Your task to perform on an android device: clear all cookies in the chrome app Image 0: 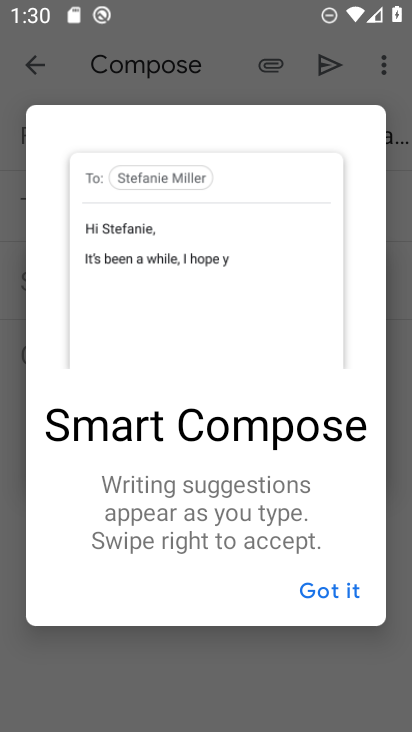
Step 0: press home button
Your task to perform on an android device: clear all cookies in the chrome app Image 1: 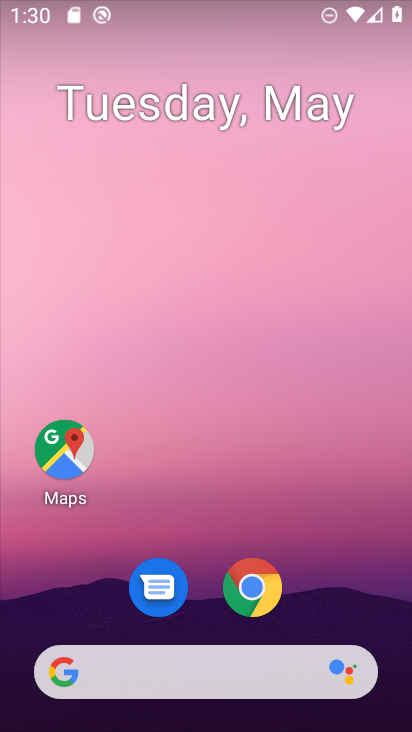
Step 1: click (247, 576)
Your task to perform on an android device: clear all cookies in the chrome app Image 2: 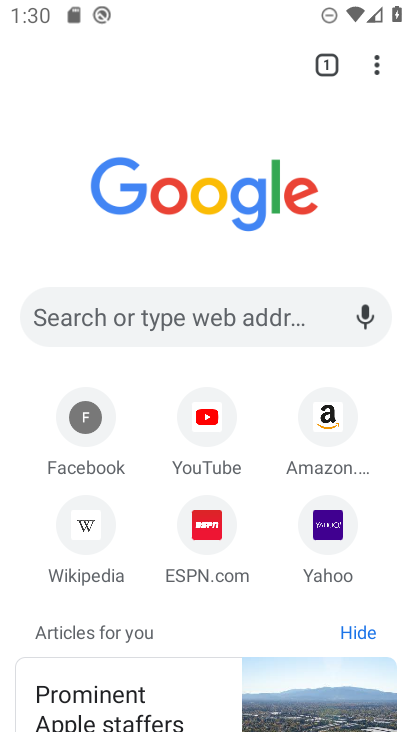
Step 2: click (389, 61)
Your task to perform on an android device: clear all cookies in the chrome app Image 3: 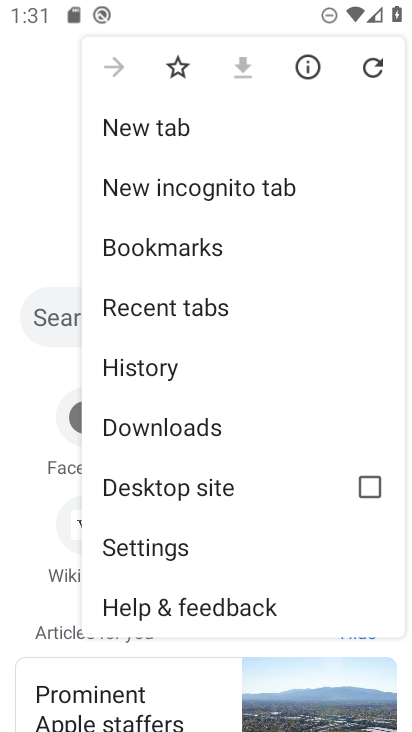
Step 3: click (180, 372)
Your task to perform on an android device: clear all cookies in the chrome app Image 4: 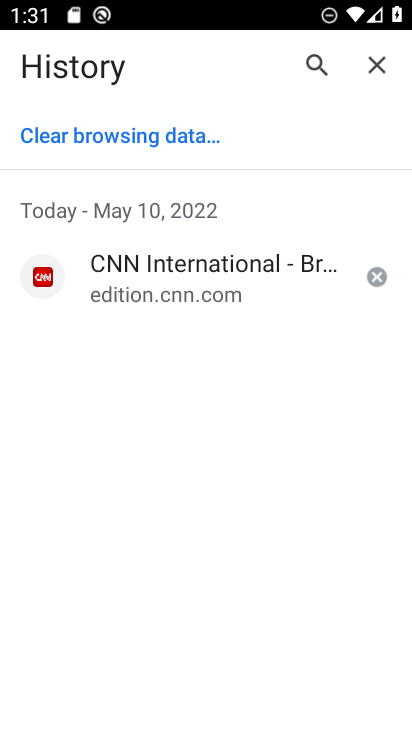
Step 4: click (148, 132)
Your task to perform on an android device: clear all cookies in the chrome app Image 5: 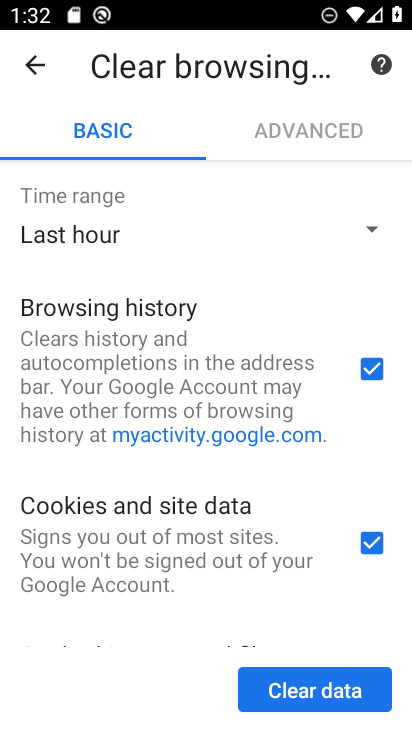
Step 5: click (369, 371)
Your task to perform on an android device: clear all cookies in the chrome app Image 6: 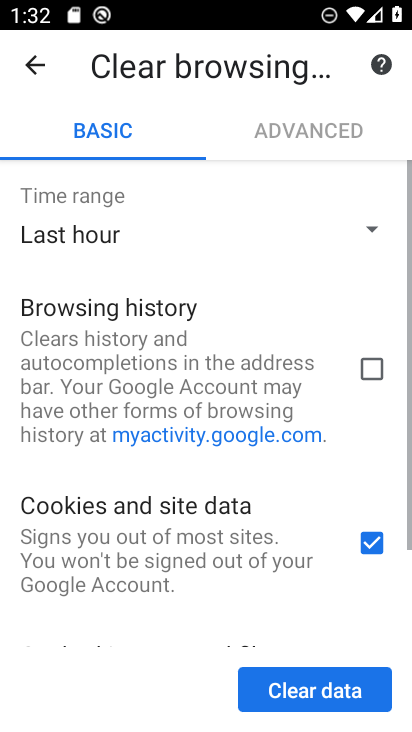
Step 6: click (340, 700)
Your task to perform on an android device: clear all cookies in the chrome app Image 7: 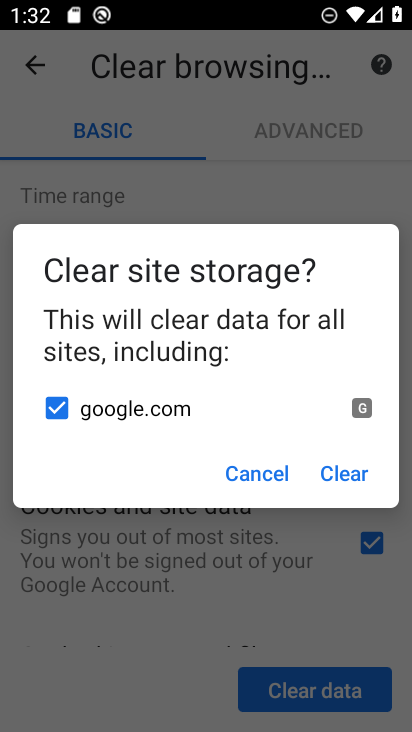
Step 7: task complete